Your task to perform on an android device: turn on translation in the chrome app Image 0: 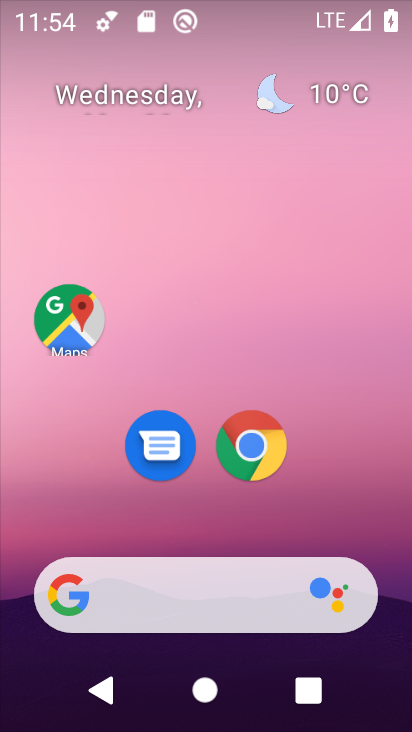
Step 0: click (242, 449)
Your task to perform on an android device: turn on translation in the chrome app Image 1: 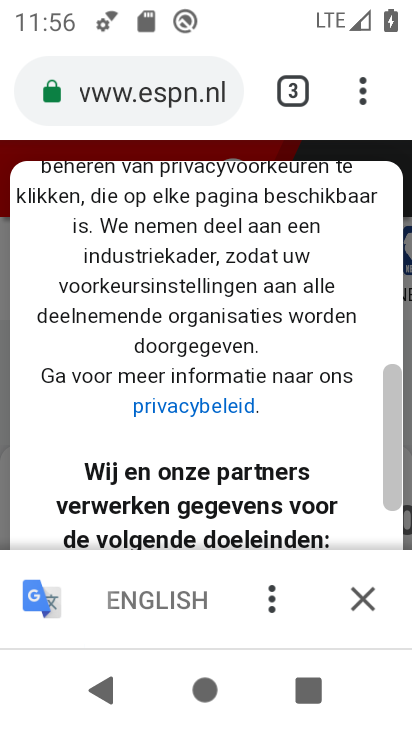
Step 1: click (363, 86)
Your task to perform on an android device: turn on translation in the chrome app Image 2: 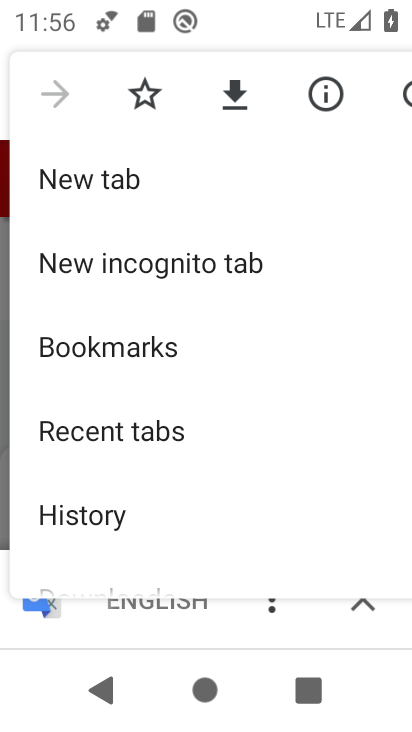
Step 2: drag from (195, 483) to (198, 51)
Your task to perform on an android device: turn on translation in the chrome app Image 3: 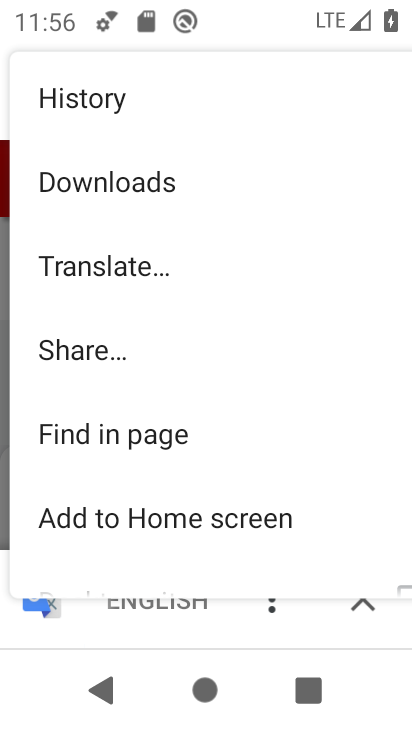
Step 3: drag from (132, 507) to (194, 81)
Your task to perform on an android device: turn on translation in the chrome app Image 4: 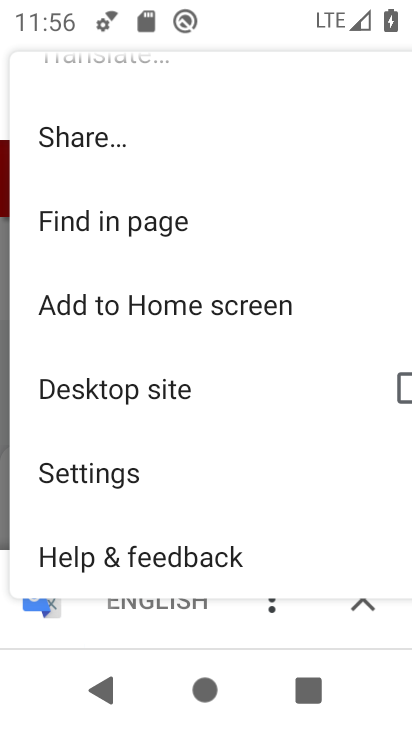
Step 4: click (168, 482)
Your task to perform on an android device: turn on translation in the chrome app Image 5: 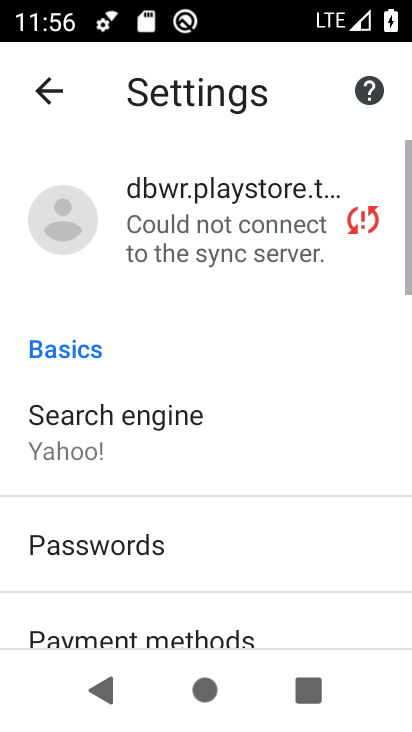
Step 5: drag from (148, 496) to (220, 121)
Your task to perform on an android device: turn on translation in the chrome app Image 6: 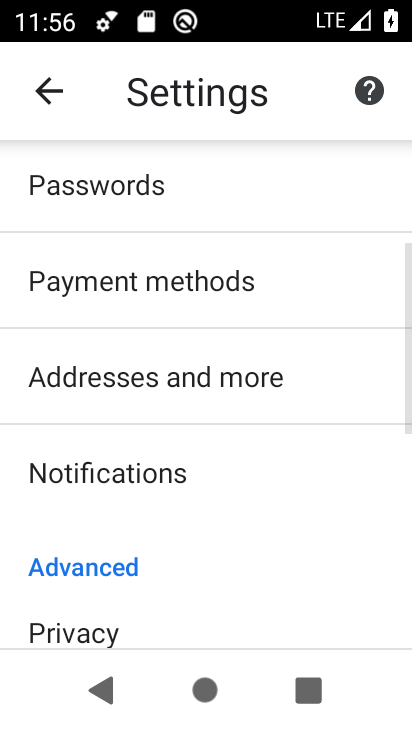
Step 6: drag from (168, 555) to (228, 198)
Your task to perform on an android device: turn on translation in the chrome app Image 7: 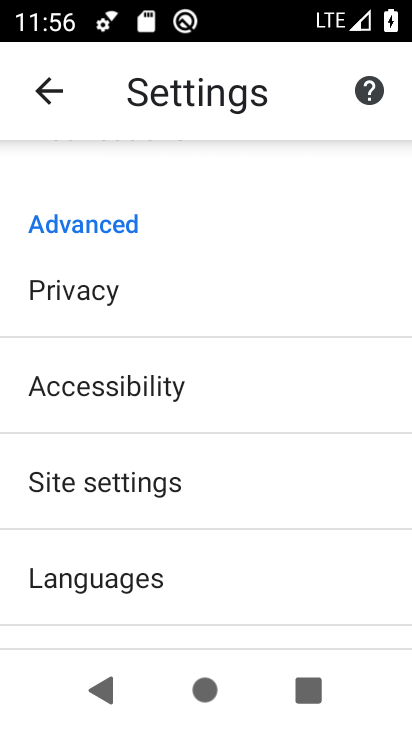
Step 7: click (120, 565)
Your task to perform on an android device: turn on translation in the chrome app Image 8: 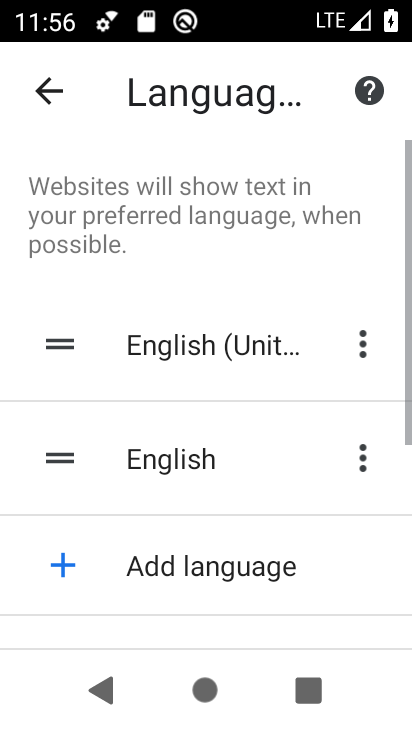
Step 8: drag from (221, 590) to (213, 108)
Your task to perform on an android device: turn on translation in the chrome app Image 9: 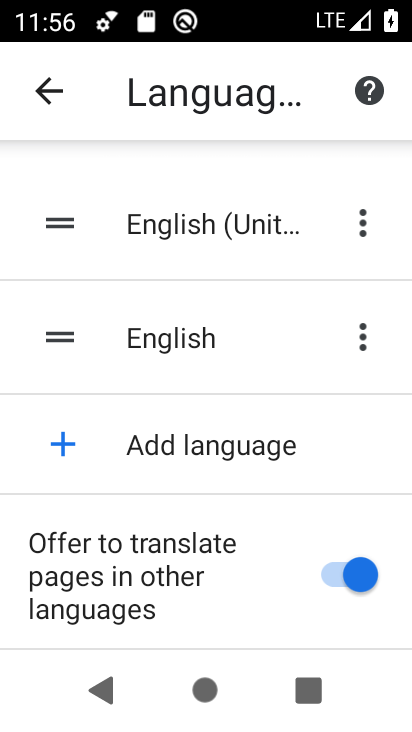
Step 9: click (352, 561)
Your task to perform on an android device: turn on translation in the chrome app Image 10: 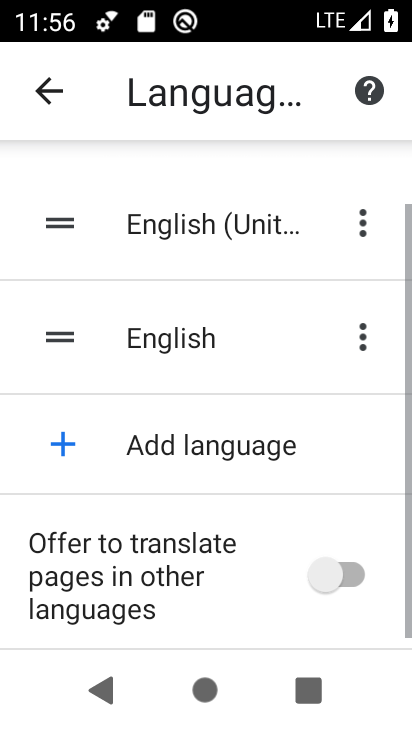
Step 10: task complete